Your task to perform on an android device: delete the emails in spam in the gmail app Image 0: 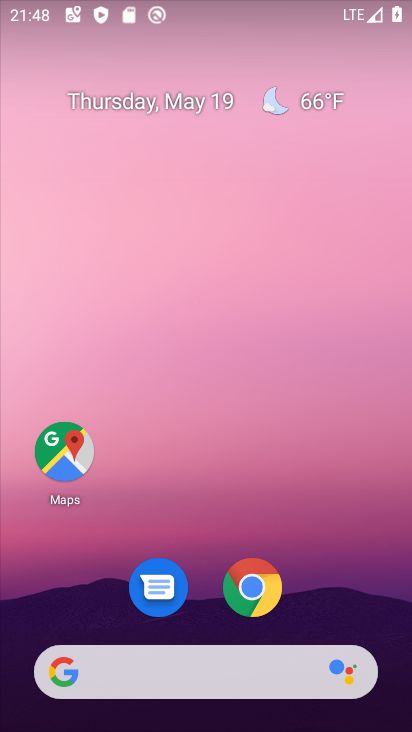
Step 0: drag from (225, 662) to (189, 145)
Your task to perform on an android device: delete the emails in spam in the gmail app Image 1: 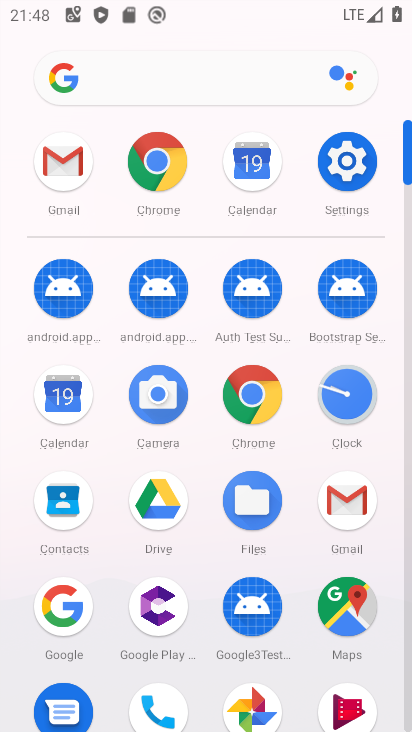
Step 1: click (346, 570)
Your task to perform on an android device: delete the emails in spam in the gmail app Image 2: 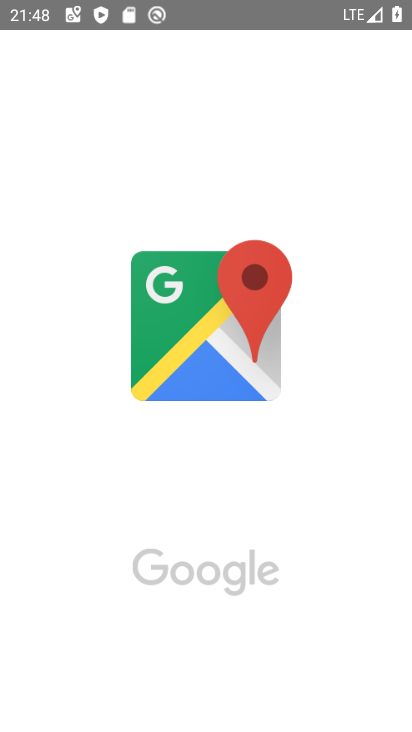
Step 2: press home button
Your task to perform on an android device: delete the emails in spam in the gmail app Image 3: 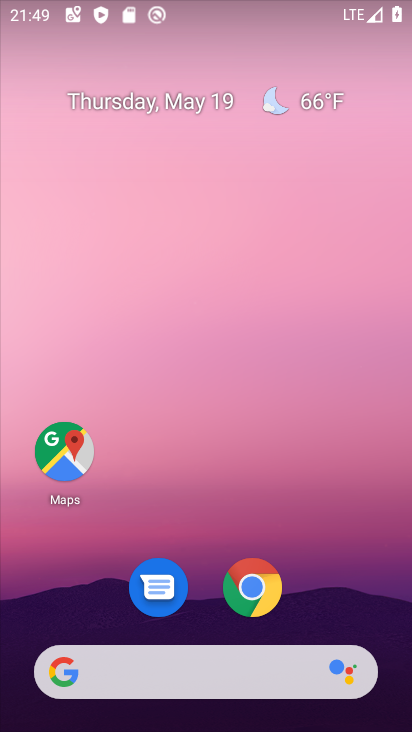
Step 3: drag from (212, 571) to (127, 240)
Your task to perform on an android device: delete the emails in spam in the gmail app Image 4: 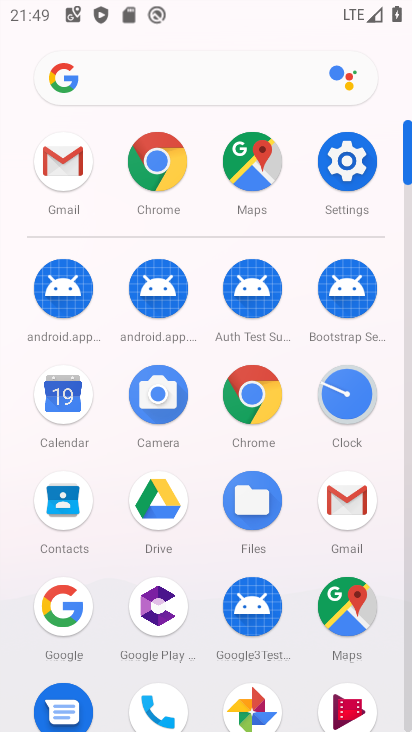
Step 4: click (64, 153)
Your task to perform on an android device: delete the emails in spam in the gmail app Image 5: 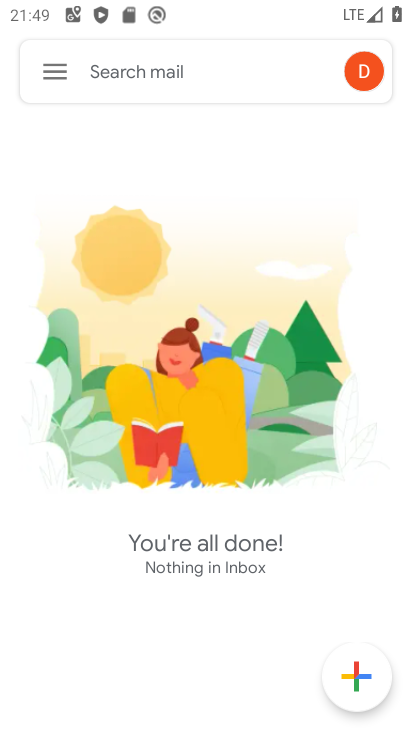
Step 5: click (57, 82)
Your task to perform on an android device: delete the emails in spam in the gmail app Image 6: 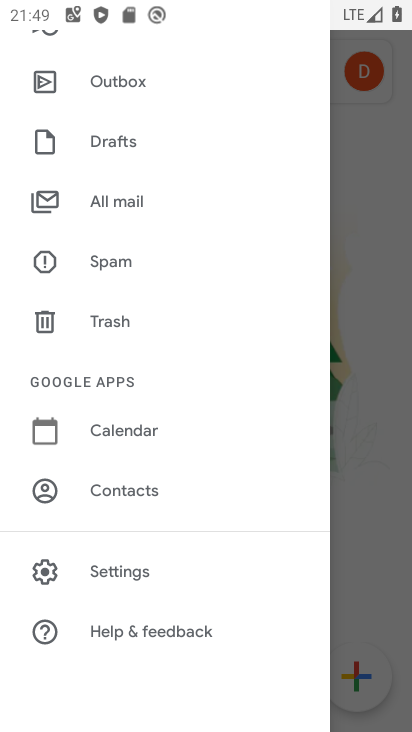
Step 6: click (62, 72)
Your task to perform on an android device: delete the emails in spam in the gmail app Image 7: 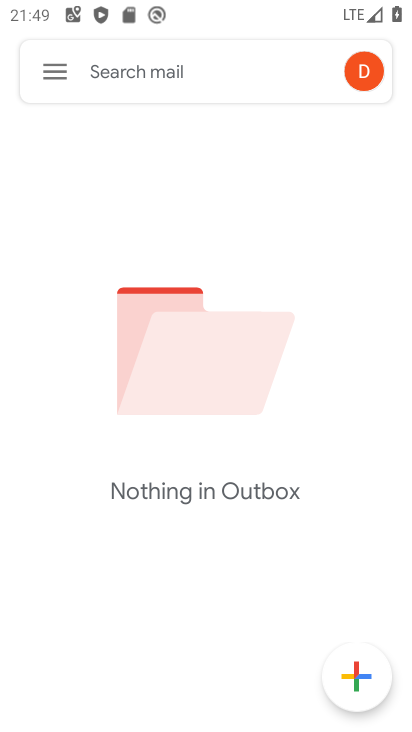
Step 7: click (61, 58)
Your task to perform on an android device: delete the emails in spam in the gmail app Image 8: 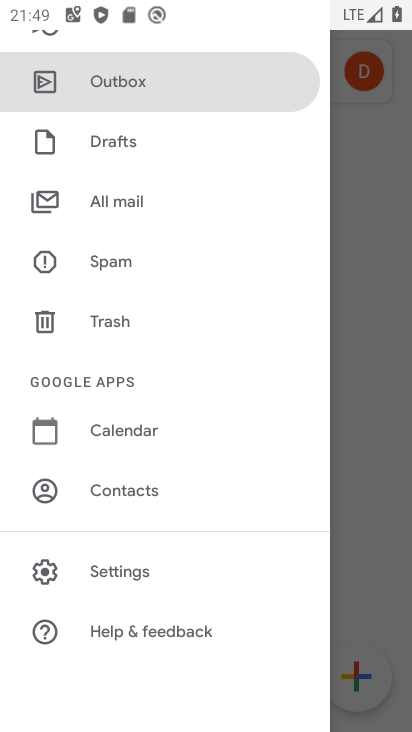
Step 8: click (30, 89)
Your task to perform on an android device: delete the emails in spam in the gmail app Image 9: 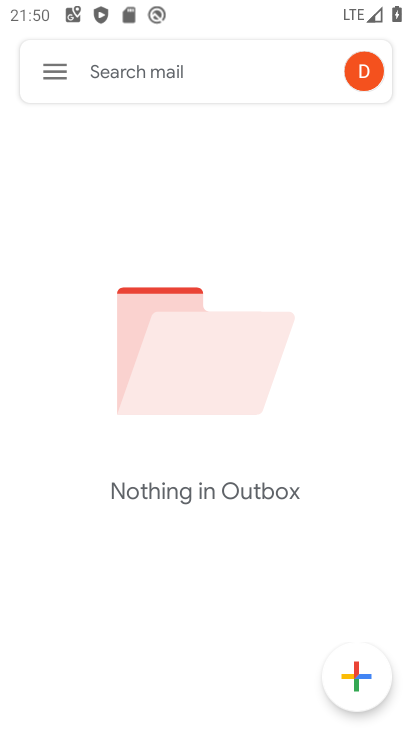
Step 9: click (97, 262)
Your task to perform on an android device: delete the emails in spam in the gmail app Image 10: 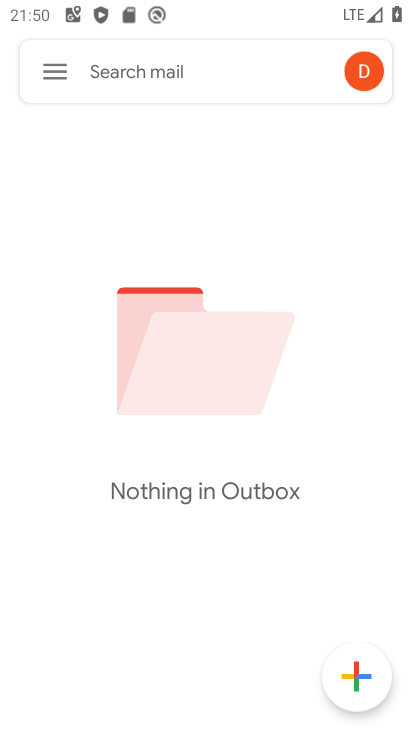
Step 10: click (51, 64)
Your task to perform on an android device: delete the emails in spam in the gmail app Image 11: 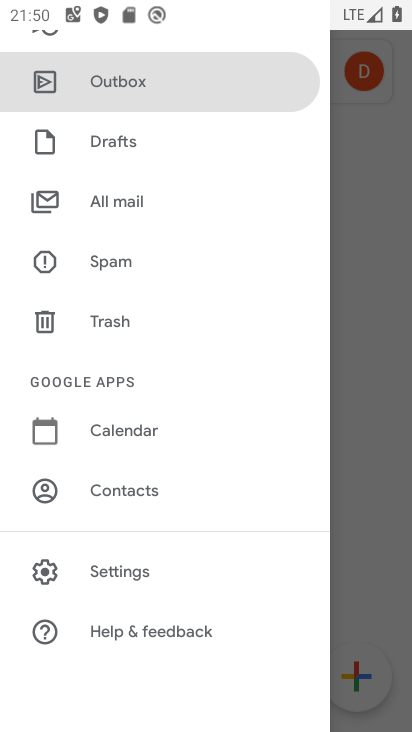
Step 11: click (134, 267)
Your task to perform on an android device: delete the emails in spam in the gmail app Image 12: 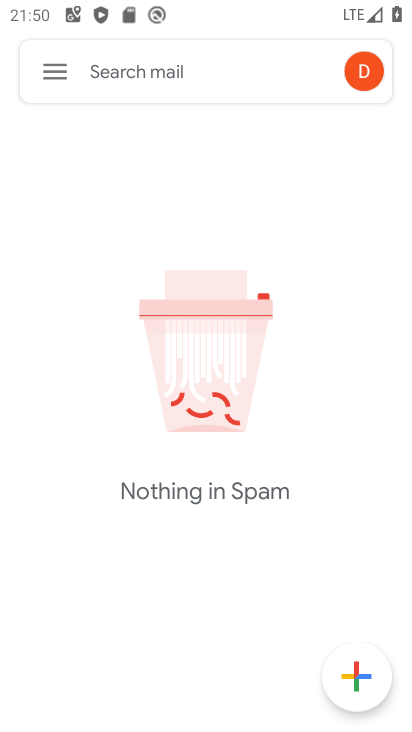
Step 12: click (132, 262)
Your task to perform on an android device: delete the emails in spam in the gmail app Image 13: 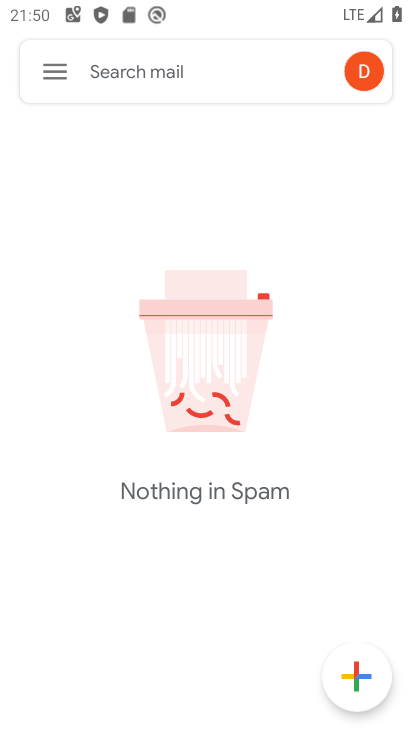
Step 13: task complete